Your task to perform on an android device: turn off improve location accuracy Image 0: 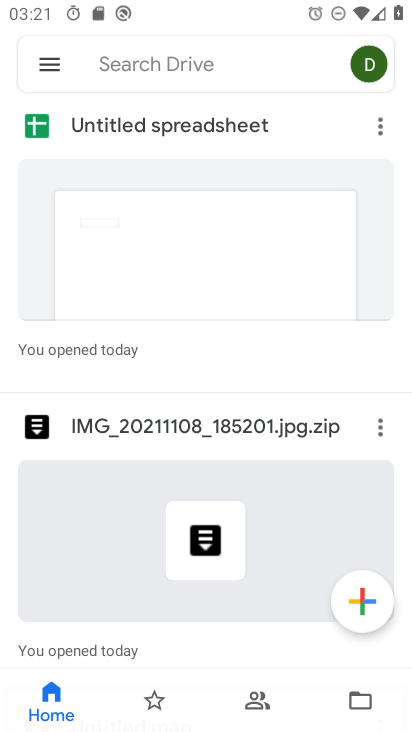
Step 0: press back button
Your task to perform on an android device: turn off improve location accuracy Image 1: 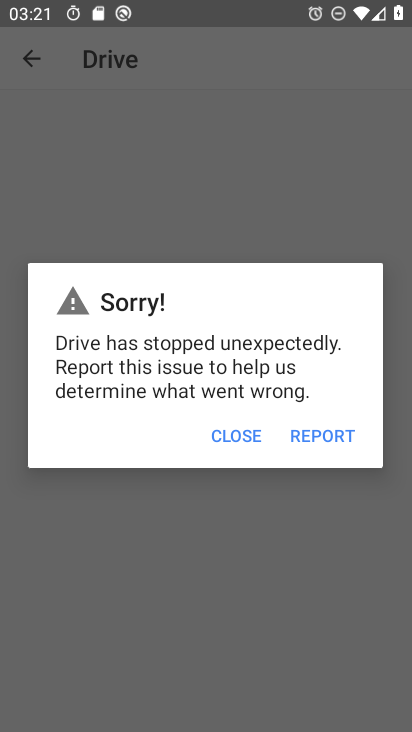
Step 1: press back button
Your task to perform on an android device: turn off improve location accuracy Image 2: 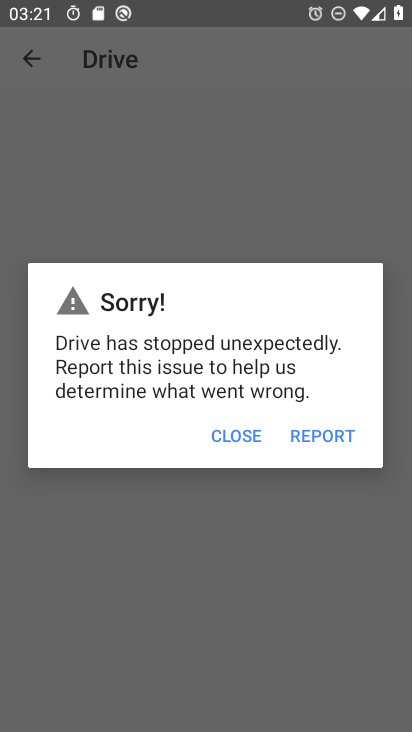
Step 2: press home button
Your task to perform on an android device: turn off improve location accuracy Image 3: 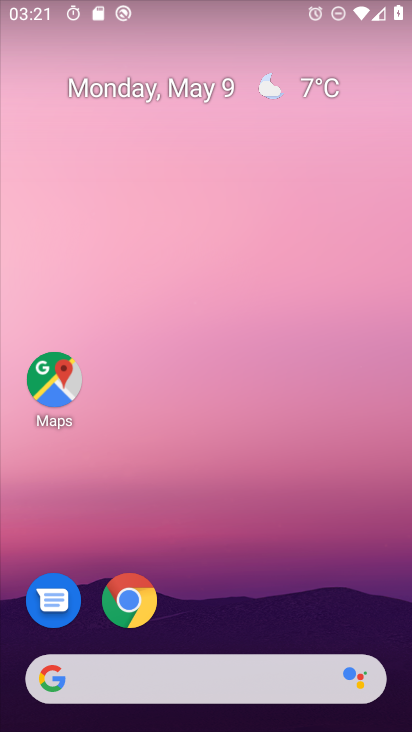
Step 3: drag from (237, 687) to (198, 170)
Your task to perform on an android device: turn off improve location accuracy Image 4: 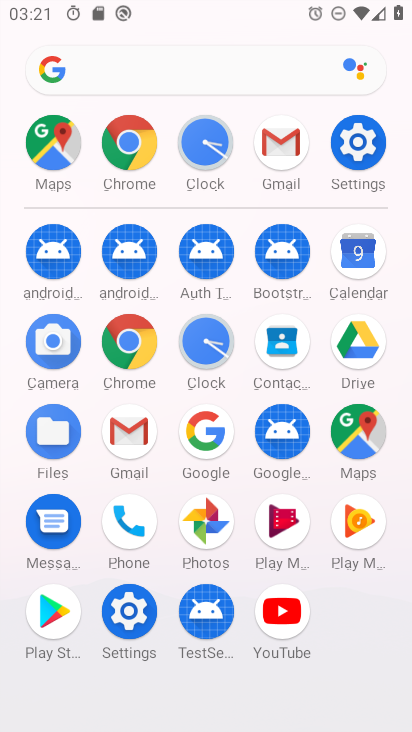
Step 4: click (342, 166)
Your task to perform on an android device: turn off improve location accuracy Image 5: 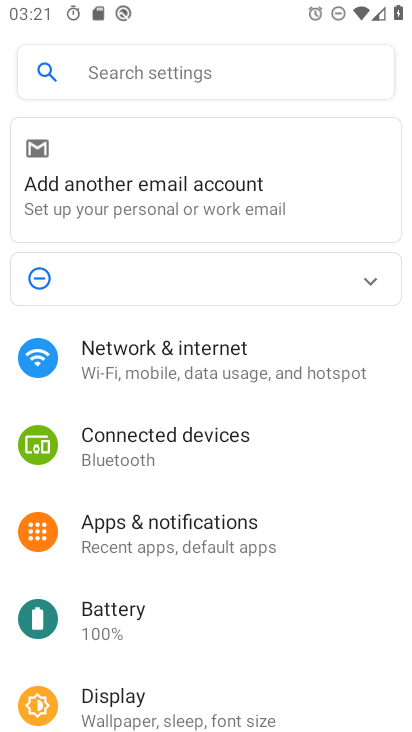
Step 5: drag from (154, 534) to (83, 20)
Your task to perform on an android device: turn off improve location accuracy Image 6: 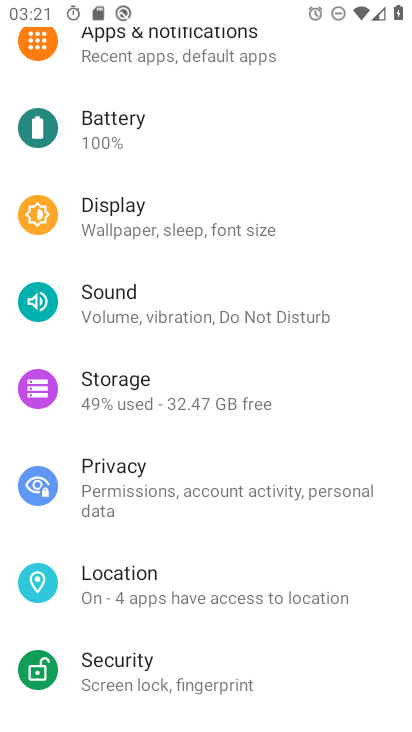
Step 6: click (185, 571)
Your task to perform on an android device: turn off improve location accuracy Image 7: 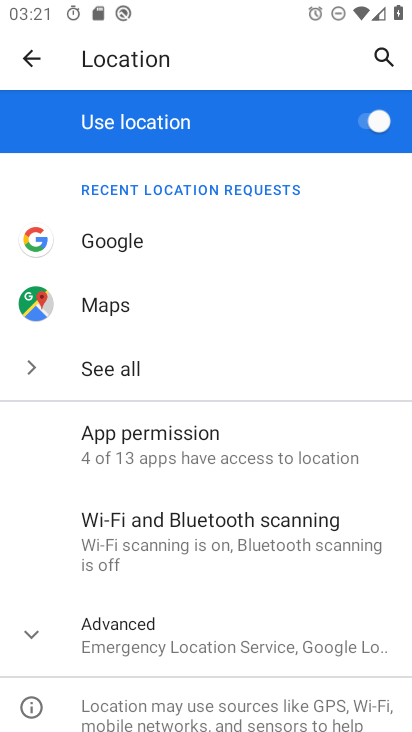
Step 7: drag from (256, 558) to (143, 62)
Your task to perform on an android device: turn off improve location accuracy Image 8: 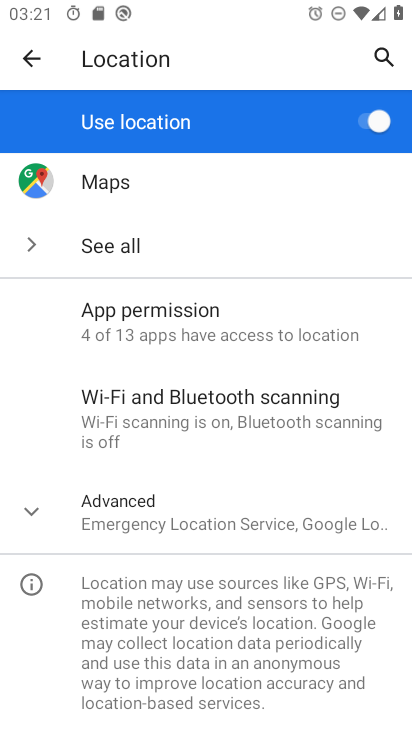
Step 8: click (178, 520)
Your task to perform on an android device: turn off improve location accuracy Image 9: 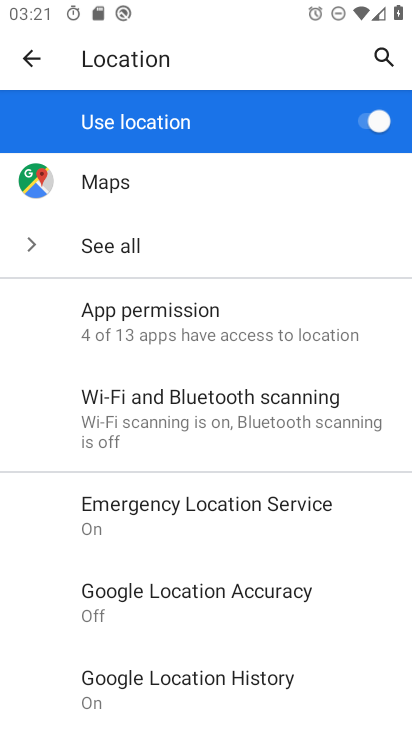
Step 9: click (221, 582)
Your task to perform on an android device: turn off improve location accuracy Image 10: 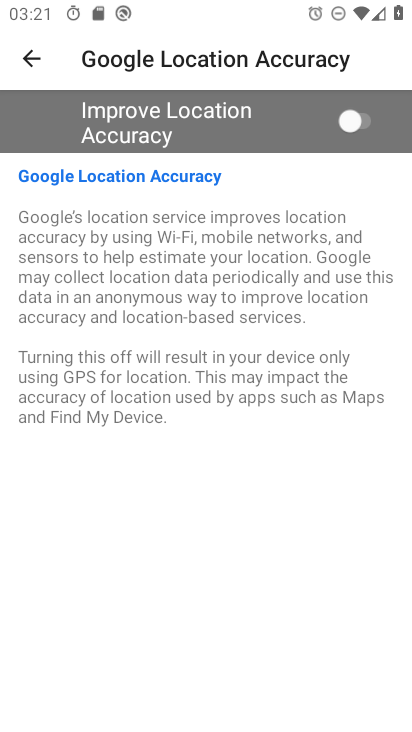
Step 10: task complete